Your task to perform on an android device: Open network settings Image 0: 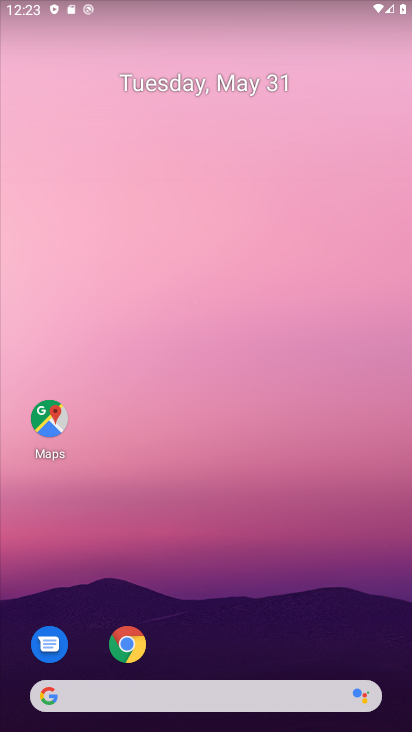
Step 0: drag from (206, 645) to (272, 81)
Your task to perform on an android device: Open network settings Image 1: 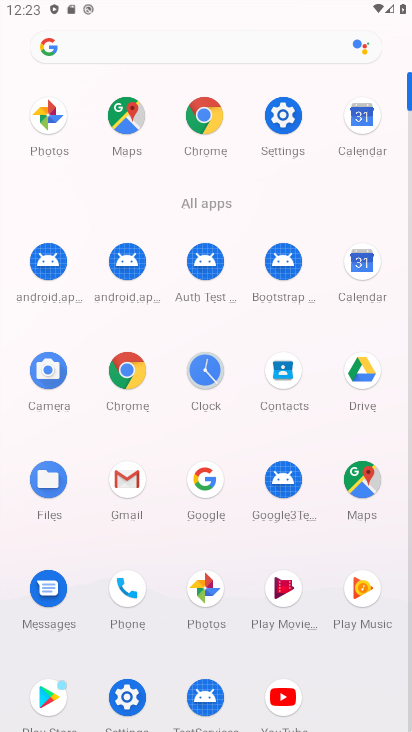
Step 1: click (282, 112)
Your task to perform on an android device: Open network settings Image 2: 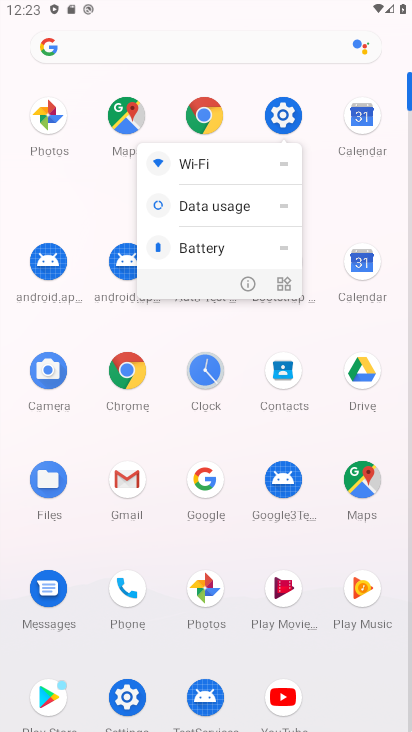
Step 2: click (279, 115)
Your task to perform on an android device: Open network settings Image 3: 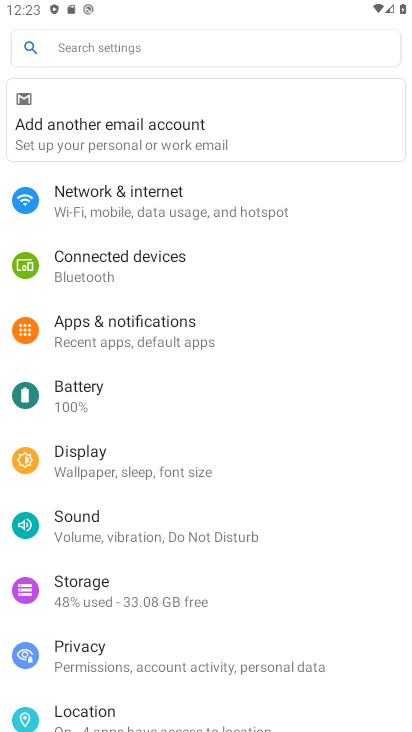
Step 3: click (108, 193)
Your task to perform on an android device: Open network settings Image 4: 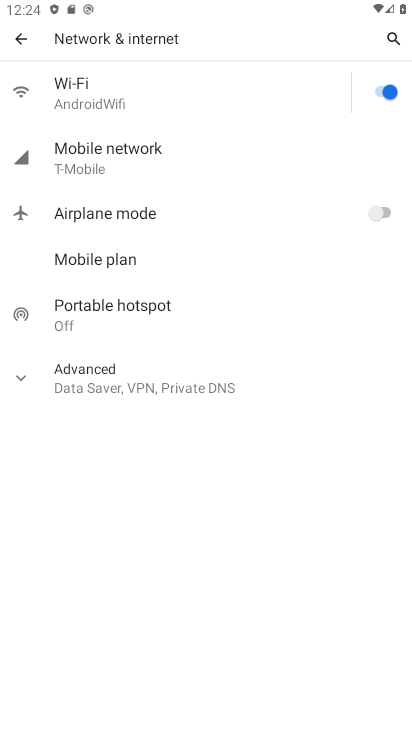
Step 4: task complete